Your task to perform on an android device: Go to Android settings Image 0: 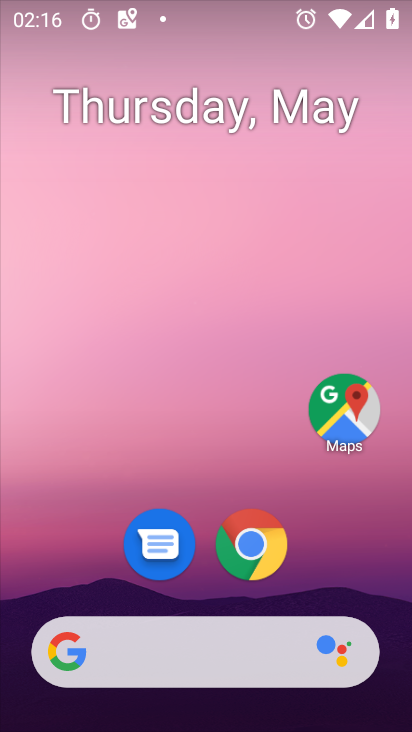
Step 0: drag from (364, 574) to (353, 234)
Your task to perform on an android device: Go to Android settings Image 1: 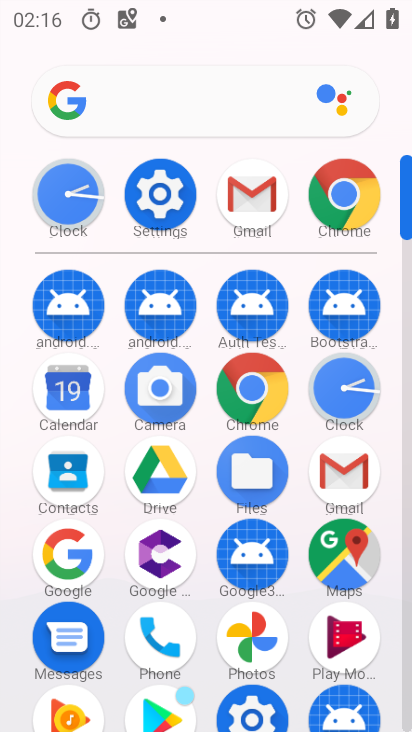
Step 1: click (152, 200)
Your task to perform on an android device: Go to Android settings Image 2: 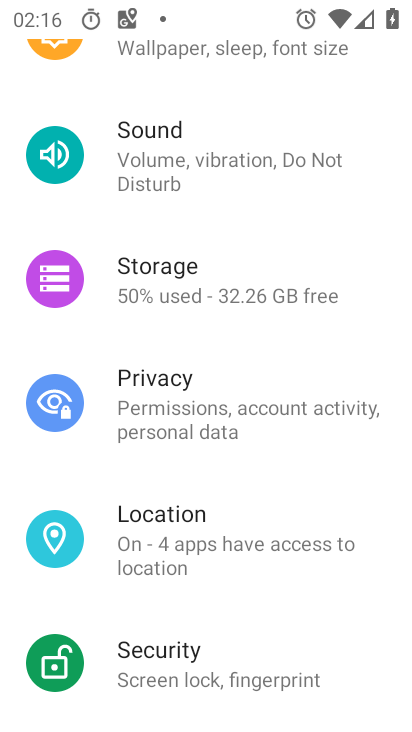
Step 2: drag from (378, 563) to (368, 329)
Your task to perform on an android device: Go to Android settings Image 3: 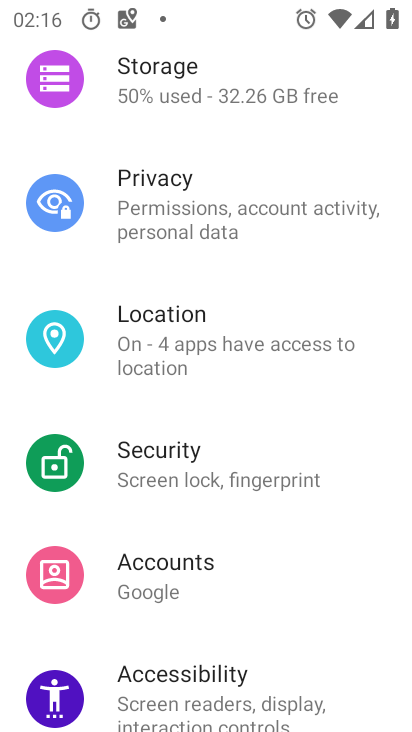
Step 3: drag from (362, 535) to (363, 407)
Your task to perform on an android device: Go to Android settings Image 4: 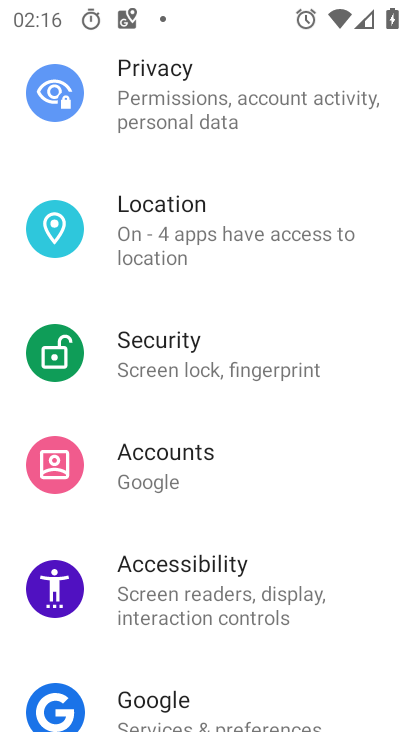
Step 4: drag from (354, 623) to (348, 472)
Your task to perform on an android device: Go to Android settings Image 5: 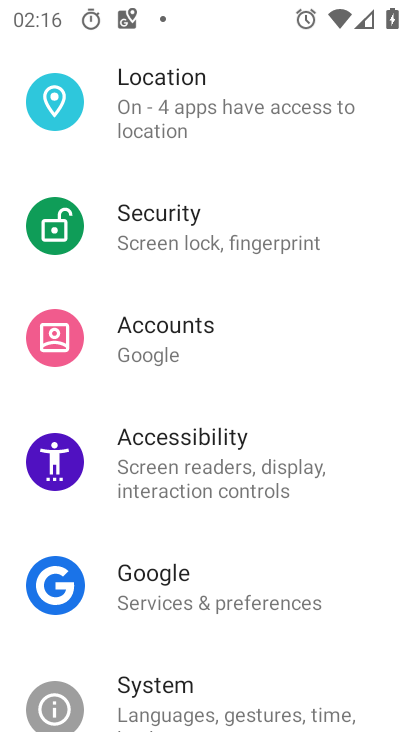
Step 5: drag from (341, 665) to (345, 519)
Your task to perform on an android device: Go to Android settings Image 6: 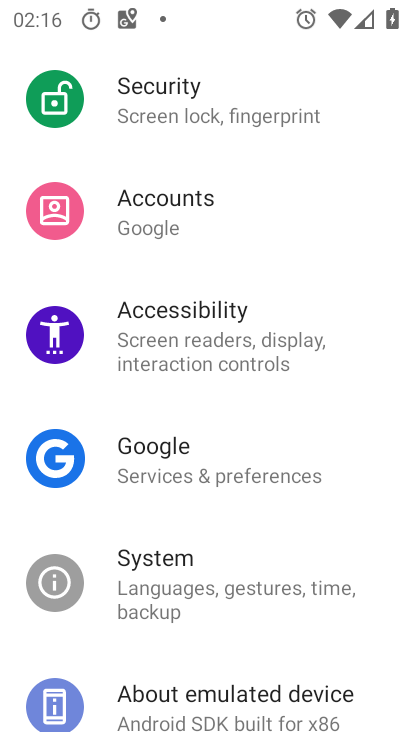
Step 6: drag from (369, 661) to (368, 517)
Your task to perform on an android device: Go to Android settings Image 7: 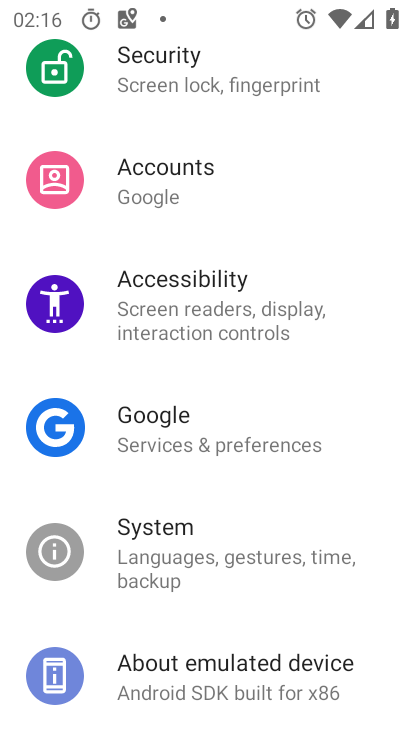
Step 7: drag from (372, 372) to (363, 550)
Your task to perform on an android device: Go to Android settings Image 8: 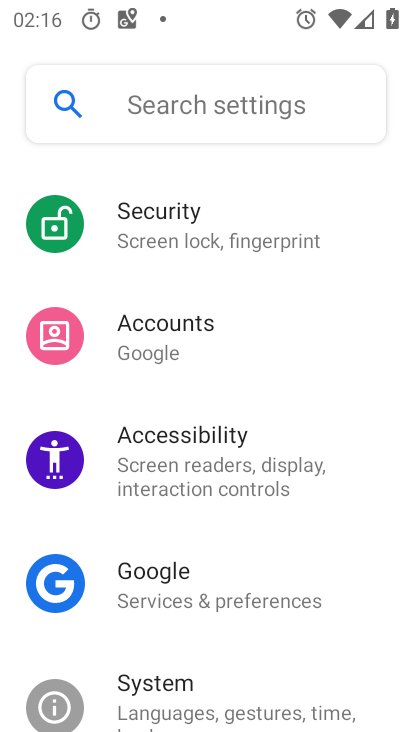
Step 8: drag from (344, 341) to (340, 448)
Your task to perform on an android device: Go to Android settings Image 9: 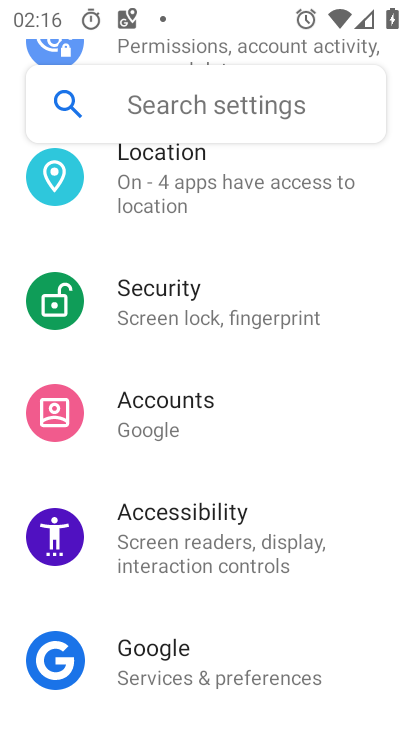
Step 9: drag from (341, 302) to (353, 403)
Your task to perform on an android device: Go to Android settings Image 10: 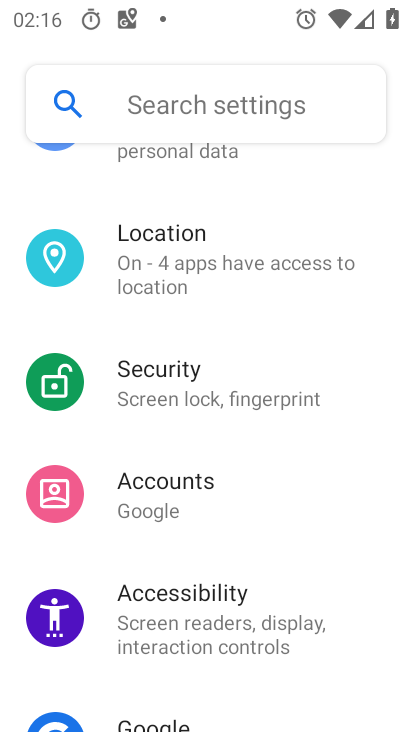
Step 10: drag from (341, 287) to (341, 399)
Your task to perform on an android device: Go to Android settings Image 11: 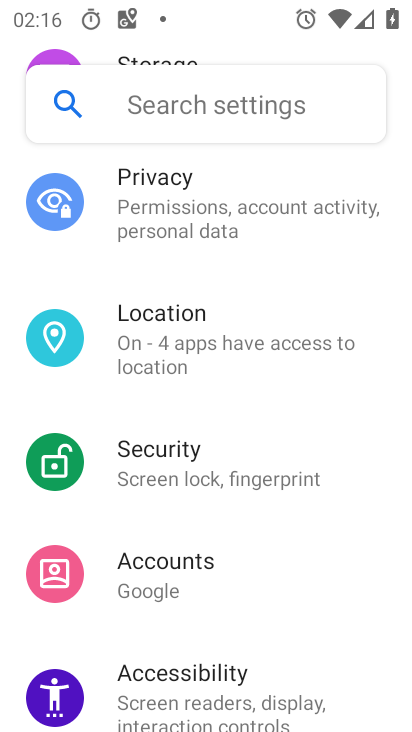
Step 11: drag from (339, 262) to (337, 394)
Your task to perform on an android device: Go to Android settings Image 12: 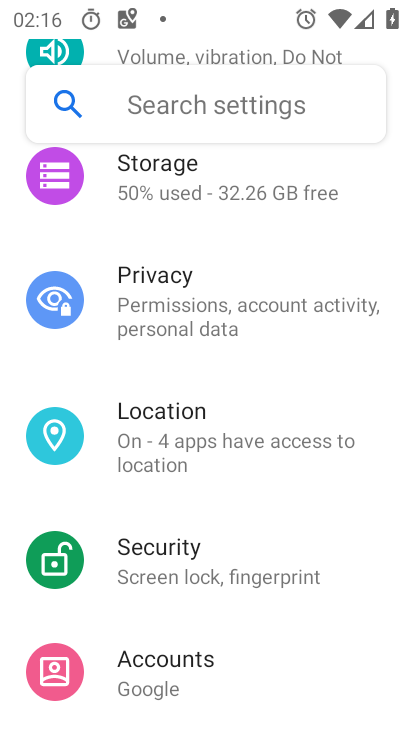
Step 12: drag from (334, 230) to (338, 337)
Your task to perform on an android device: Go to Android settings Image 13: 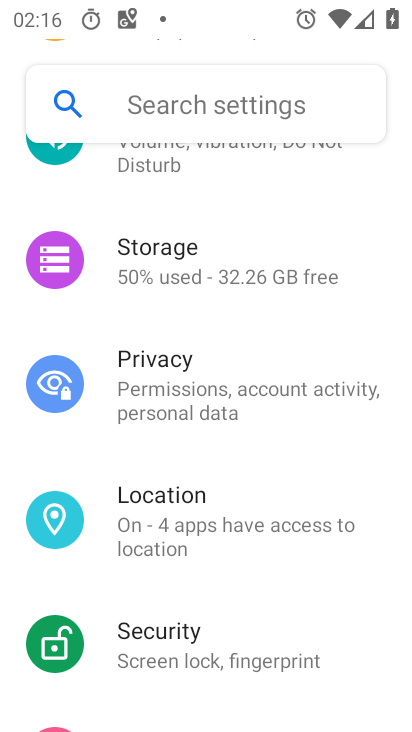
Step 13: drag from (338, 210) to (344, 356)
Your task to perform on an android device: Go to Android settings Image 14: 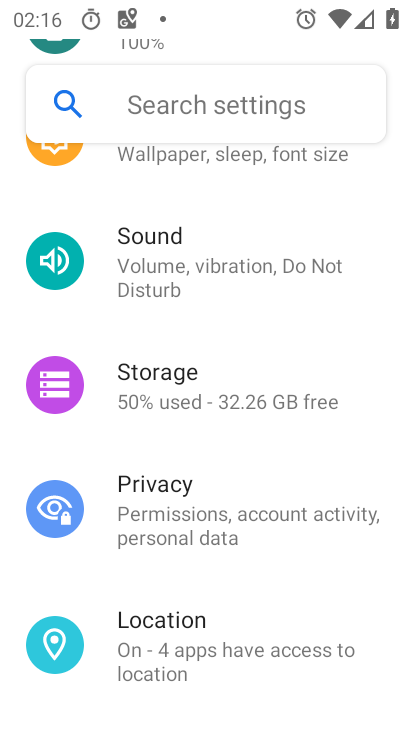
Step 14: drag from (330, 212) to (330, 321)
Your task to perform on an android device: Go to Android settings Image 15: 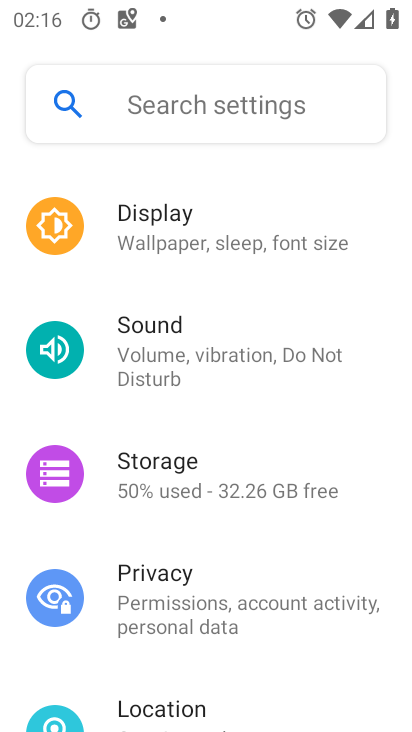
Step 15: drag from (326, 183) to (326, 271)
Your task to perform on an android device: Go to Android settings Image 16: 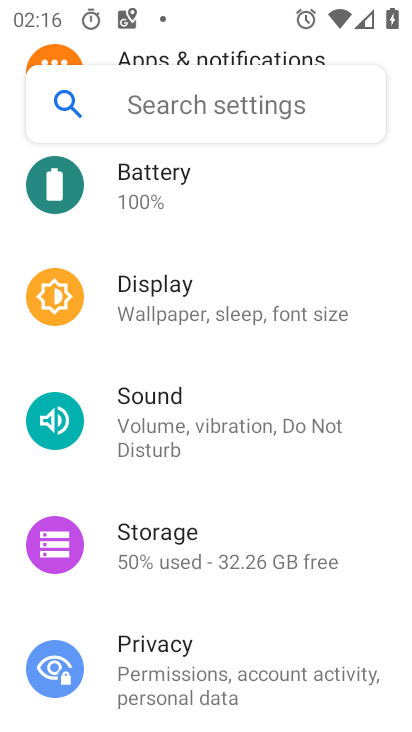
Step 16: drag from (319, 183) to (321, 296)
Your task to perform on an android device: Go to Android settings Image 17: 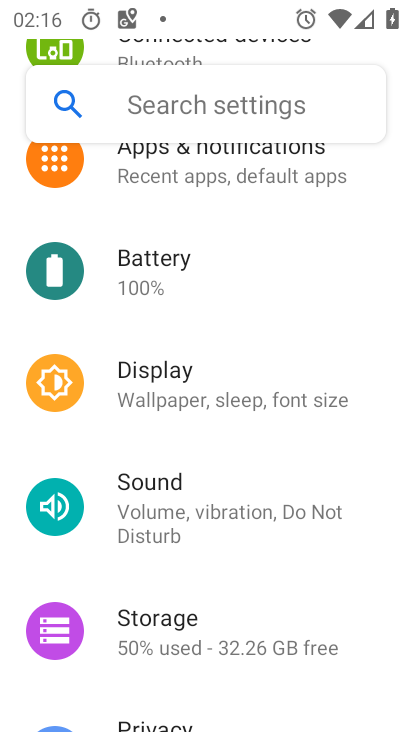
Step 17: drag from (314, 160) to (320, 298)
Your task to perform on an android device: Go to Android settings Image 18: 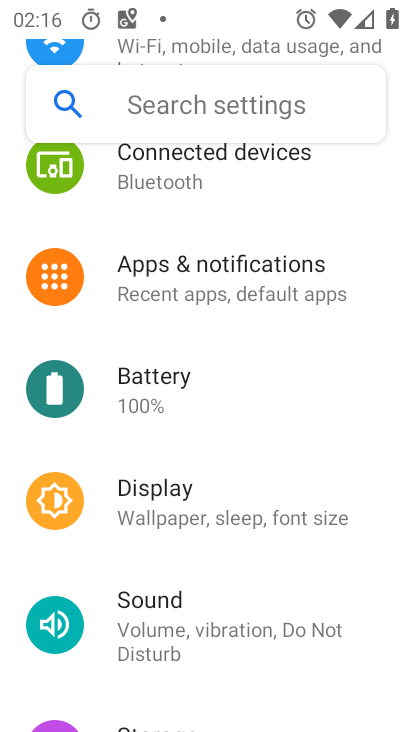
Step 18: drag from (328, 176) to (334, 306)
Your task to perform on an android device: Go to Android settings Image 19: 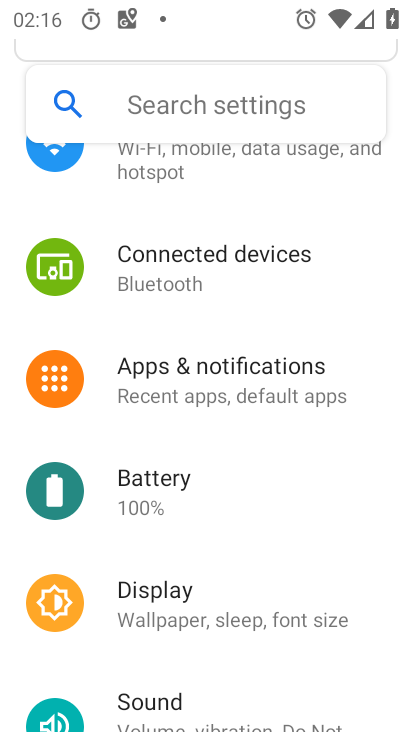
Step 19: drag from (353, 208) to (355, 325)
Your task to perform on an android device: Go to Android settings Image 20: 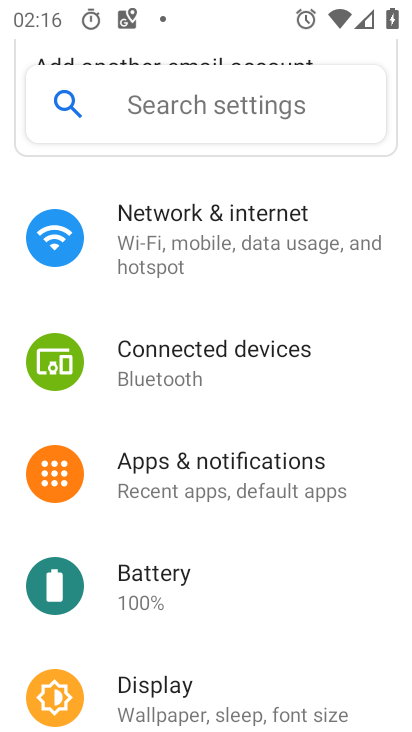
Step 20: drag from (350, 411) to (350, 286)
Your task to perform on an android device: Go to Android settings Image 21: 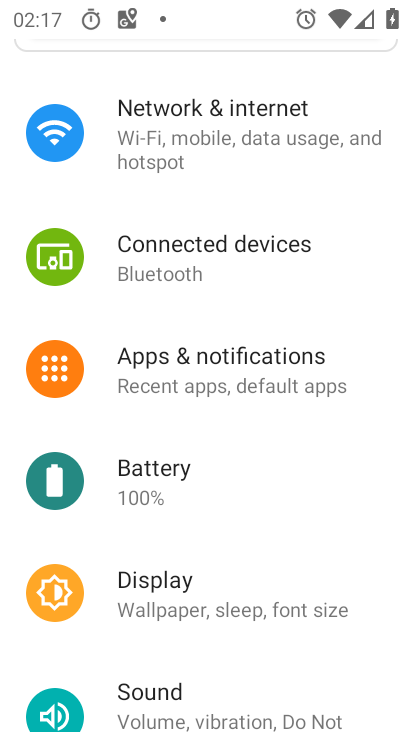
Step 21: drag from (341, 448) to (344, 332)
Your task to perform on an android device: Go to Android settings Image 22: 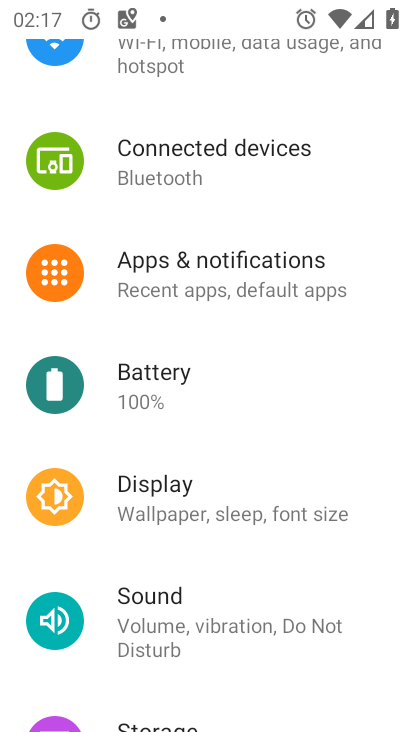
Step 22: drag from (330, 479) to (336, 383)
Your task to perform on an android device: Go to Android settings Image 23: 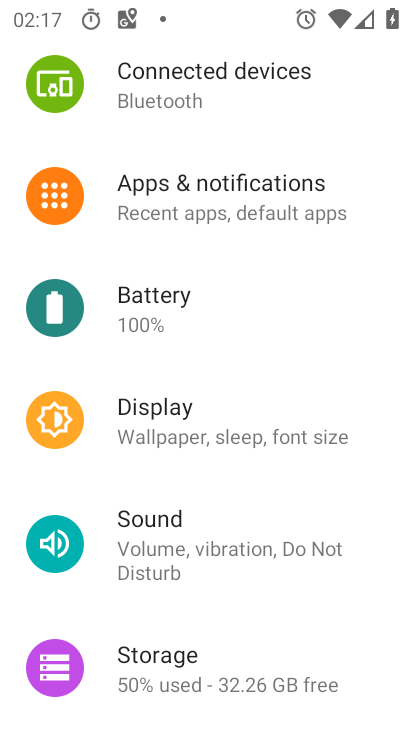
Step 23: drag from (326, 503) to (326, 410)
Your task to perform on an android device: Go to Android settings Image 24: 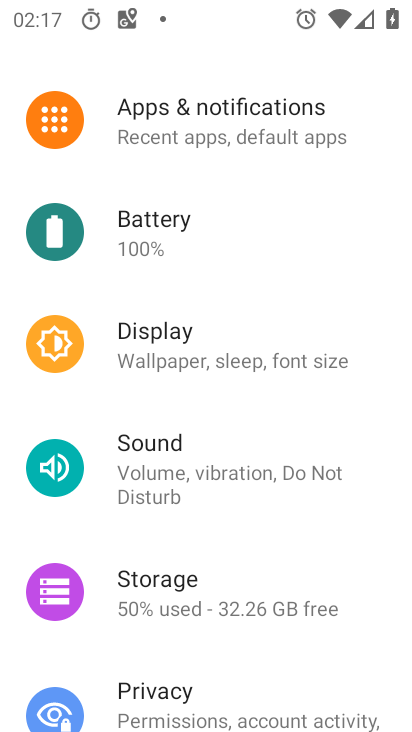
Step 24: drag from (326, 504) to (324, 421)
Your task to perform on an android device: Go to Android settings Image 25: 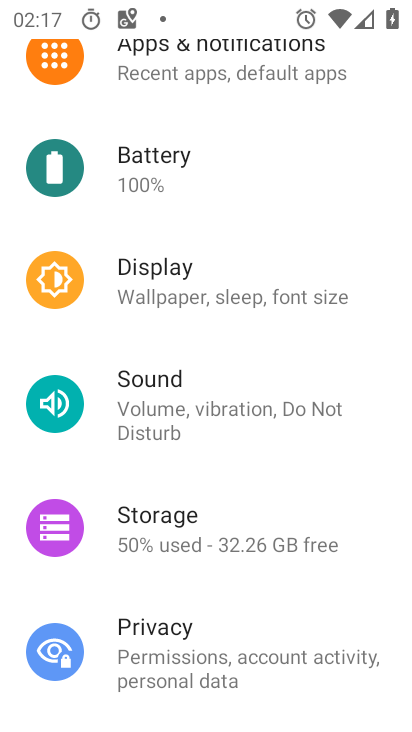
Step 25: drag from (319, 543) to (324, 438)
Your task to perform on an android device: Go to Android settings Image 26: 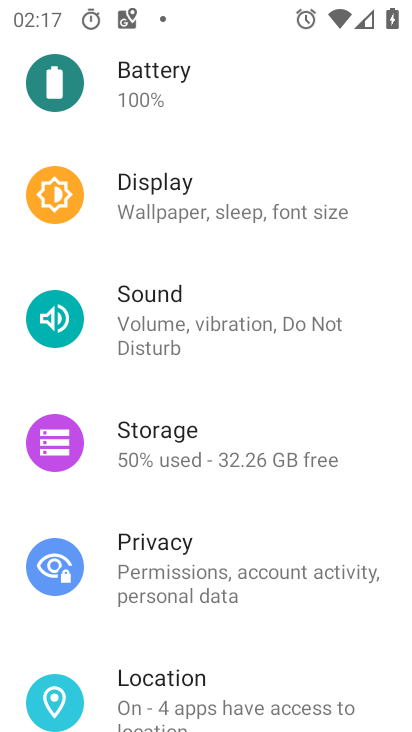
Step 26: drag from (325, 550) to (328, 464)
Your task to perform on an android device: Go to Android settings Image 27: 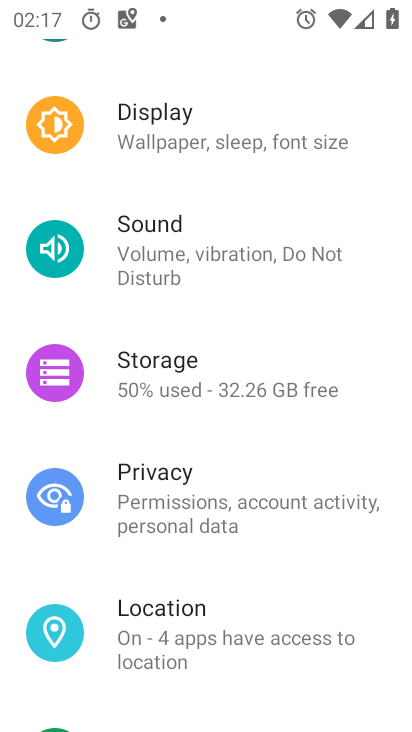
Step 27: drag from (317, 502) to (318, 426)
Your task to perform on an android device: Go to Android settings Image 28: 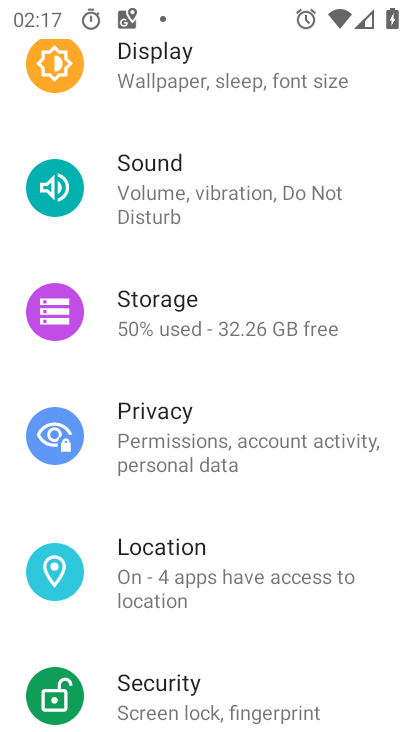
Step 28: drag from (313, 554) to (312, 481)
Your task to perform on an android device: Go to Android settings Image 29: 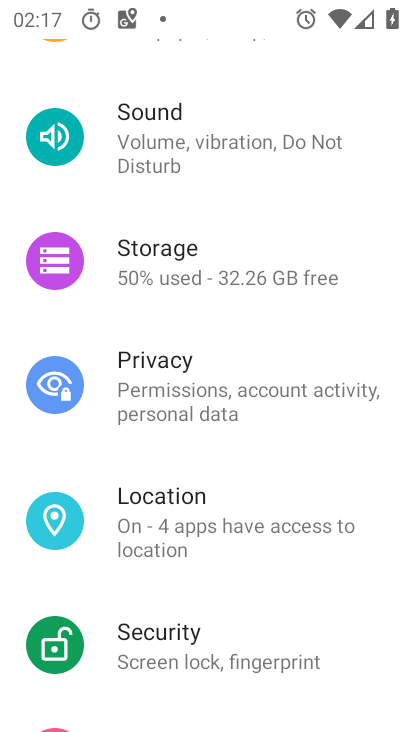
Step 29: drag from (309, 572) to (314, 497)
Your task to perform on an android device: Go to Android settings Image 30: 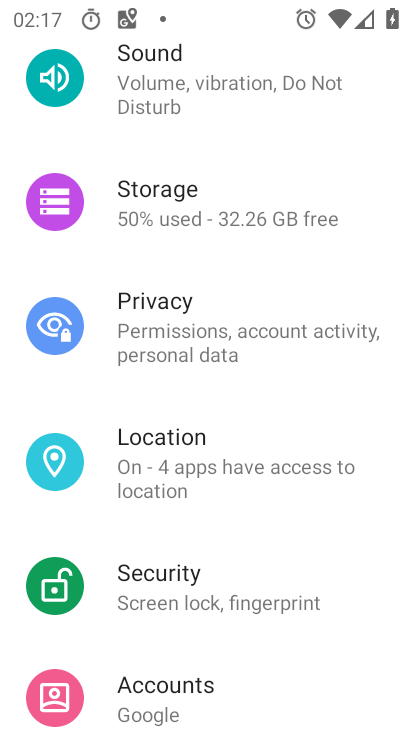
Step 30: drag from (320, 564) to (326, 462)
Your task to perform on an android device: Go to Android settings Image 31: 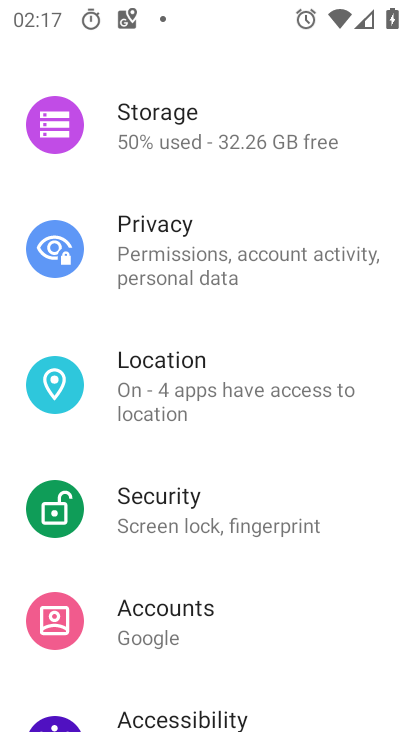
Step 31: drag from (321, 580) to (325, 491)
Your task to perform on an android device: Go to Android settings Image 32: 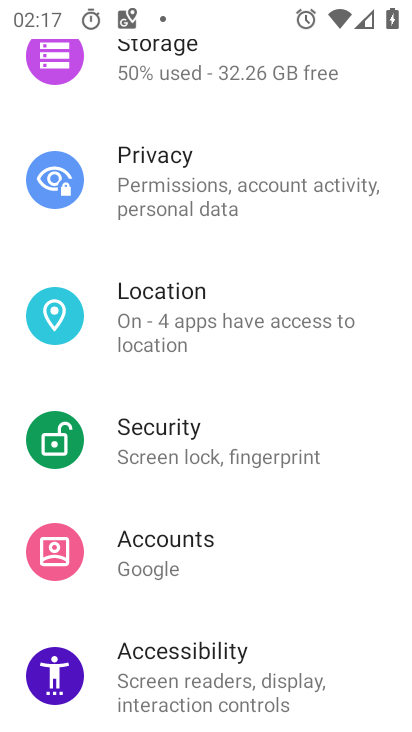
Step 32: drag from (314, 609) to (321, 485)
Your task to perform on an android device: Go to Android settings Image 33: 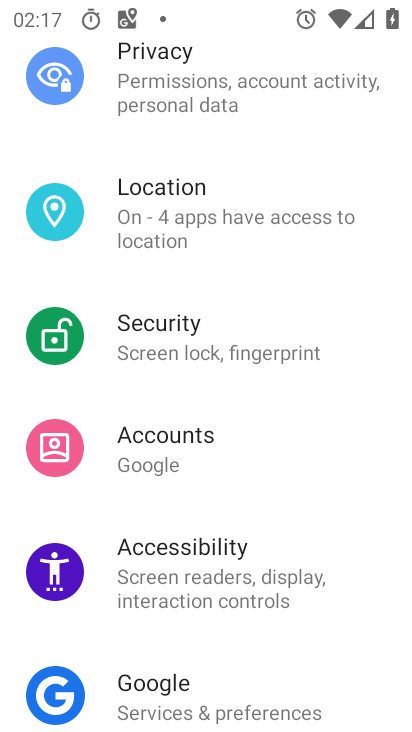
Step 33: drag from (316, 629) to (313, 561)
Your task to perform on an android device: Go to Android settings Image 34: 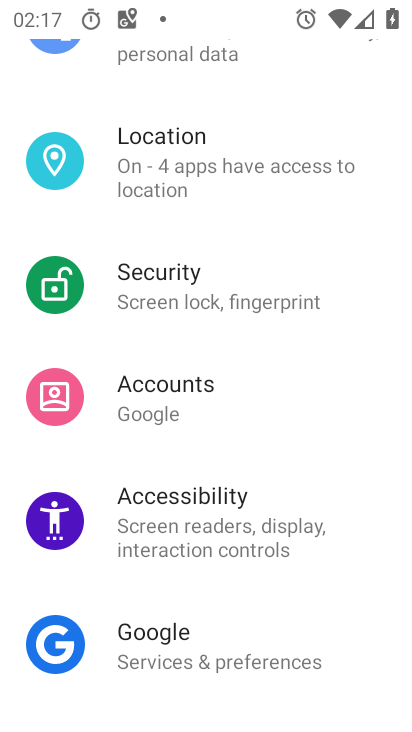
Step 34: drag from (306, 661) to (323, 503)
Your task to perform on an android device: Go to Android settings Image 35: 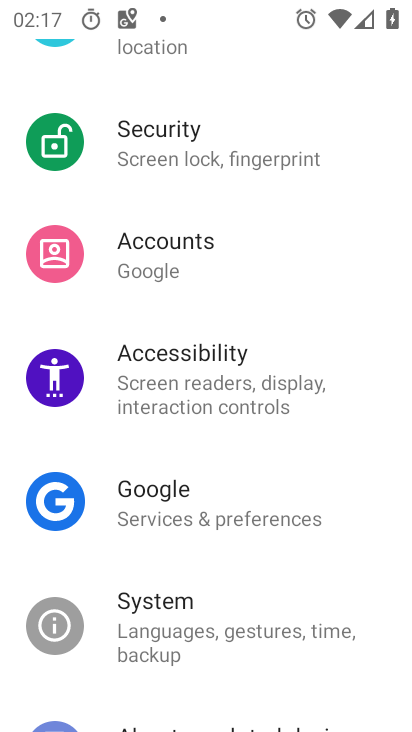
Step 35: click (282, 632)
Your task to perform on an android device: Go to Android settings Image 36: 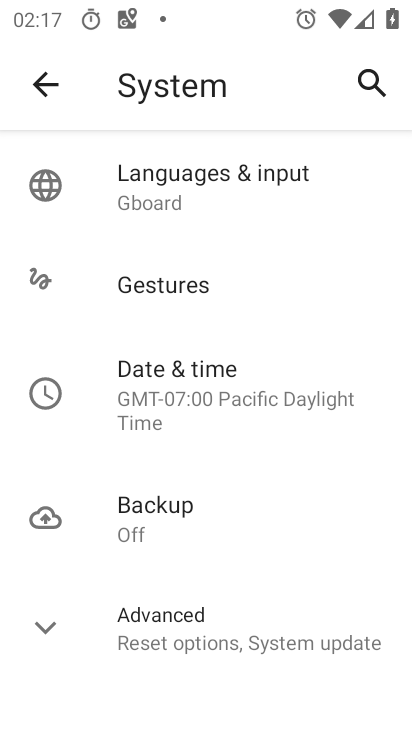
Step 36: click (282, 632)
Your task to perform on an android device: Go to Android settings Image 37: 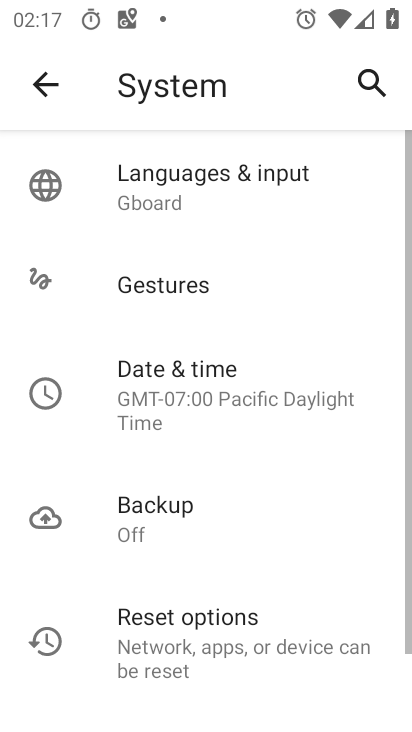
Step 37: task complete